Your task to perform on an android device: check out phone information Image 0: 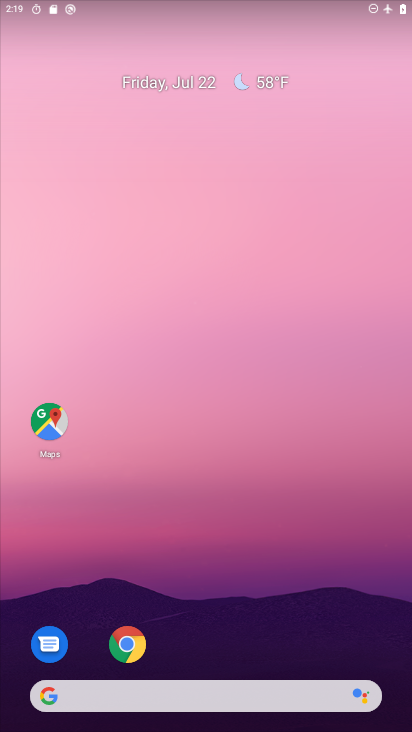
Step 0: drag from (226, 623) to (265, 167)
Your task to perform on an android device: check out phone information Image 1: 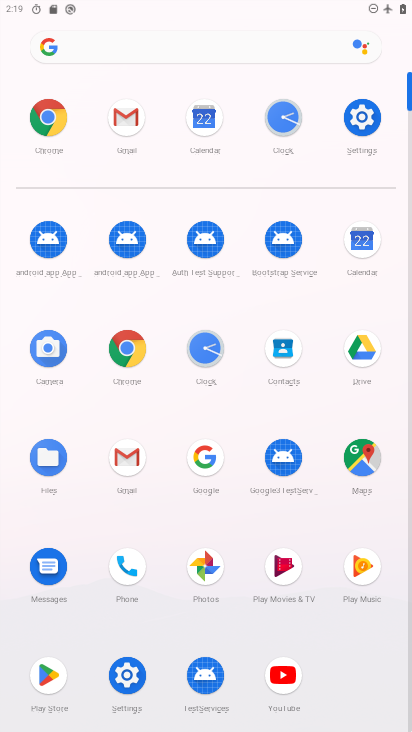
Step 1: click (360, 123)
Your task to perform on an android device: check out phone information Image 2: 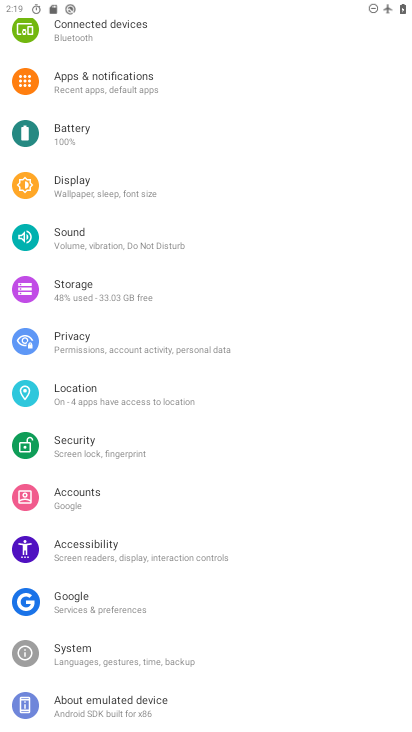
Step 2: drag from (203, 675) to (205, 302)
Your task to perform on an android device: check out phone information Image 3: 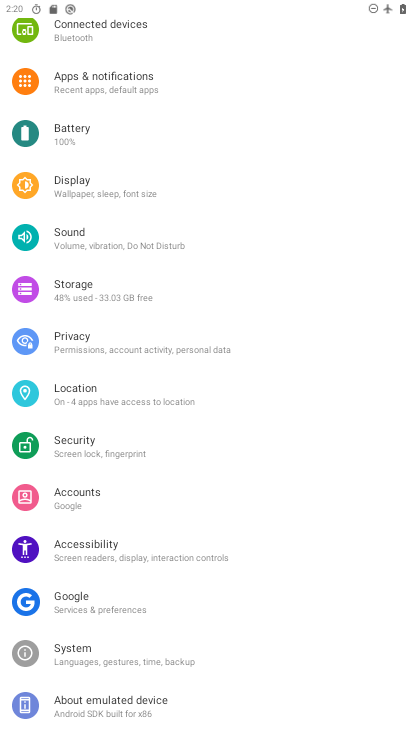
Step 3: click (112, 711)
Your task to perform on an android device: check out phone information Image 4: 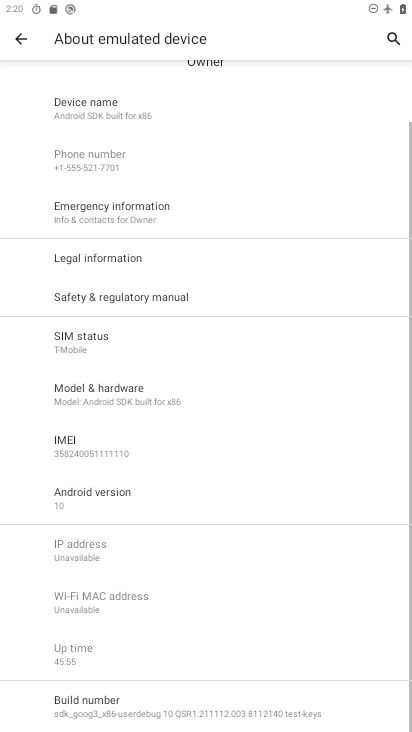
Step 4: task complete